Your task to perform on an android device: Go to wifi settings Image 0: 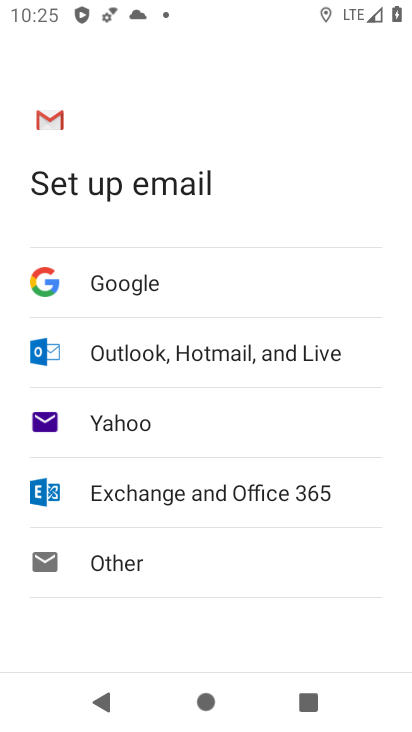
Step 0: press home button
Your task to perform on an android device: Go to wifi settings Image 1: 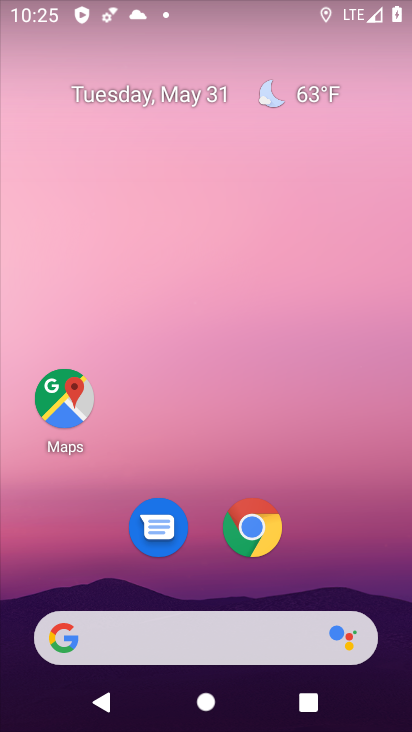
Step 1: drag from (360, 580) to (252, 148)
Your task to perform on an android device: Go to wifi settings Image 2: 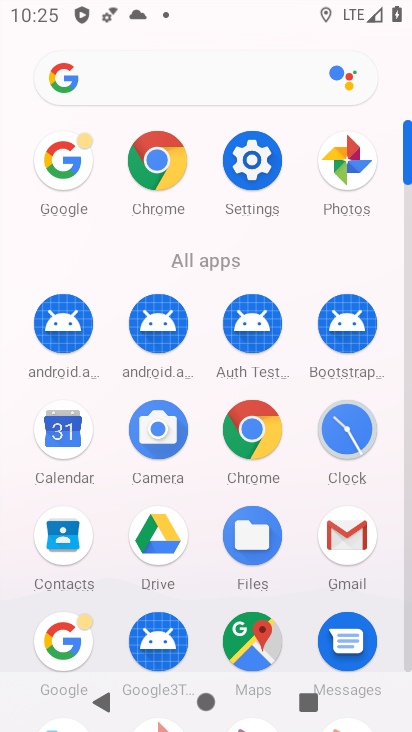
Step 2: click (263, 163)
Your task to perform on an android device: Go to wifi settings Image 3: 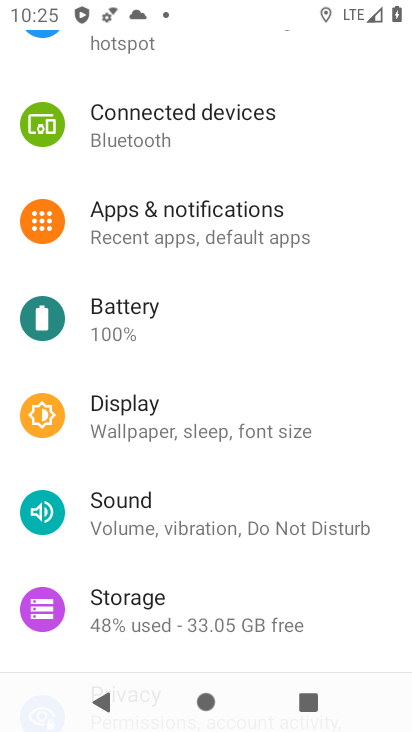
Step 3: drag from (208, 135) to (177, 498)
Your task to perform on an android device: Go to wifi settings Image 4: 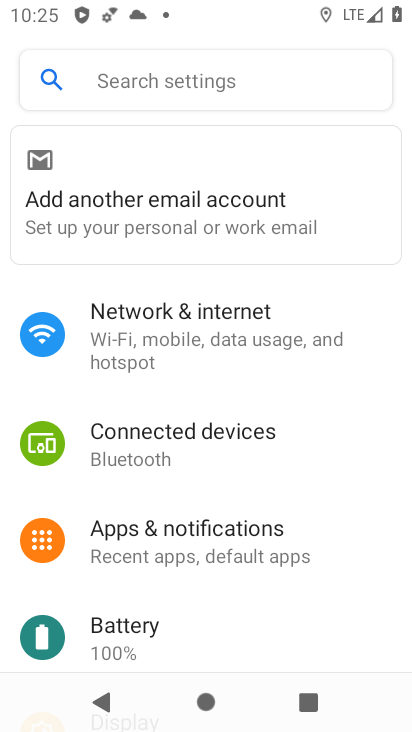
Step 4: click (168, 316)
Your task to perform on an android device: Go to wifi settings Image 5: 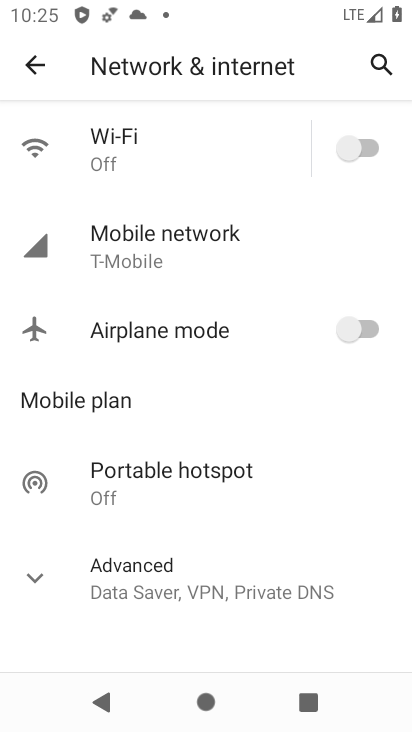
Step 5: click (126, 155)
Your task to perform on an android device: Go to wifi settings Image 6: 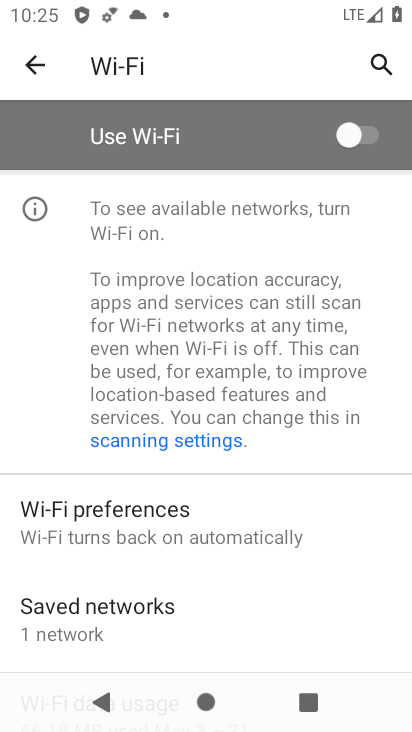
Step 6: task complete